Your task to perform on an android device: open chrome and create a bookmark for the current page Image 0: 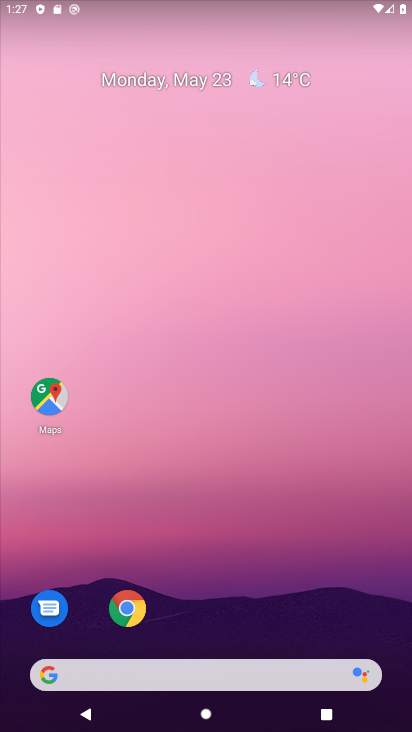
Step 0: click (122, 606)
Your task to perform on an android device: open chrome and create a bookmark for the current page Image 1: 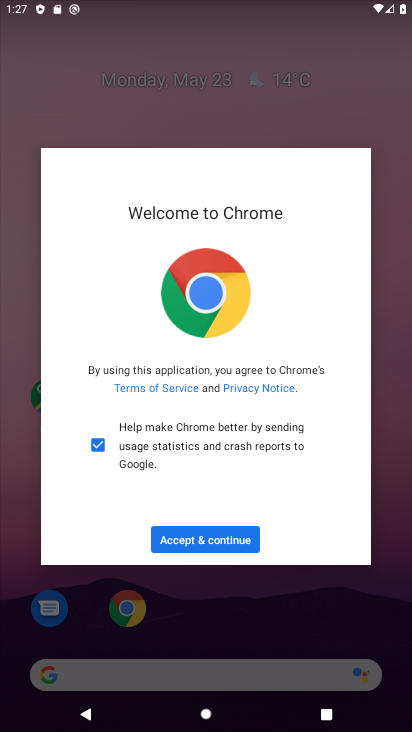
Step 1: click (205, 536)
Your task to perform on an android device: open chrome and create a bookmark for the current page Image 2: 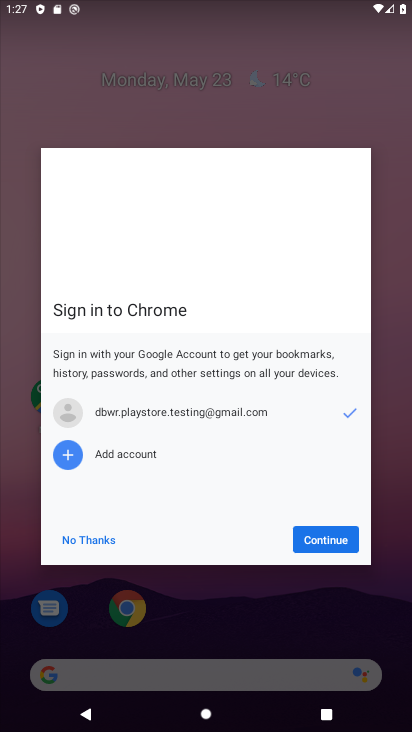
Step 2: click (307, 539)
Your task to perform on an android device: open chrome and create a bookmark for the current page Image 3: 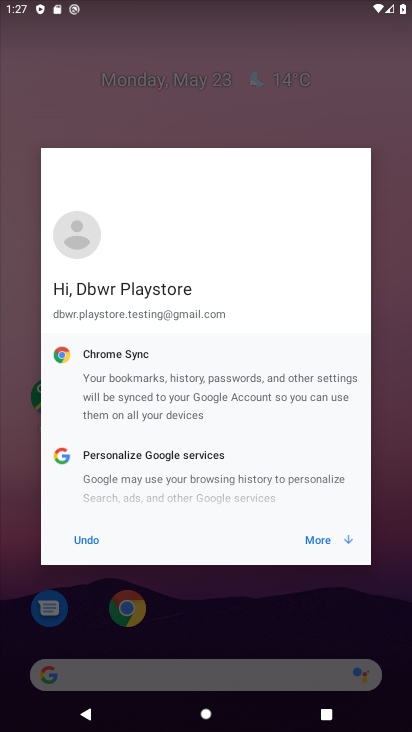
Step 3: click (307, 539)
Your task to perform on an android device: open chrome and create a bookmark for the current page Image 4: 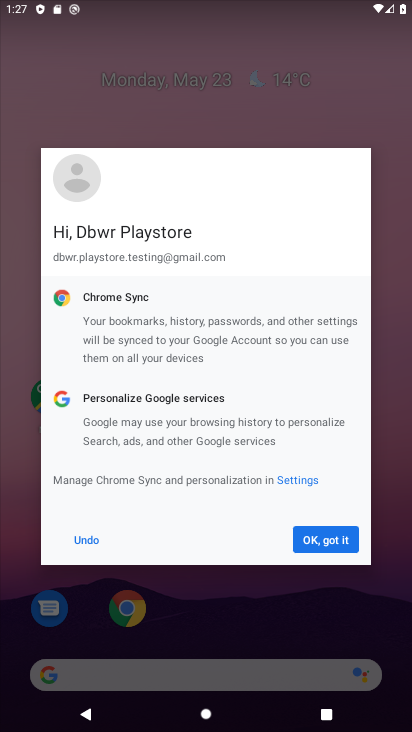
Step 4: click (340, 530)
Your task to perform on an android device: open chrome and create a bookmark for the current page Image 5: 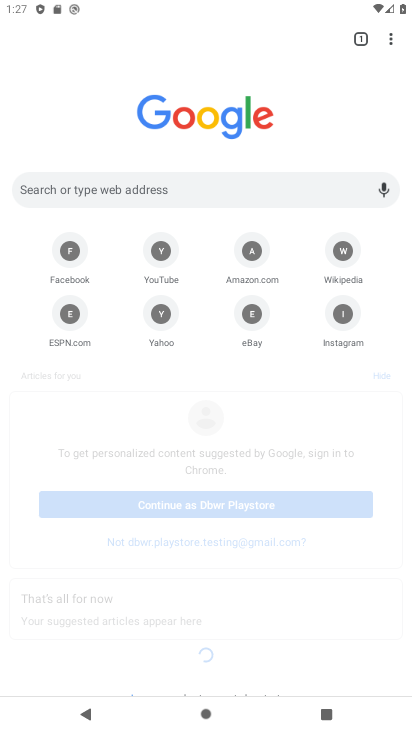
Step 5: click (394, 35)
Your task to perform on an android device: open chrome and create a bookmark for the current page Image 6: 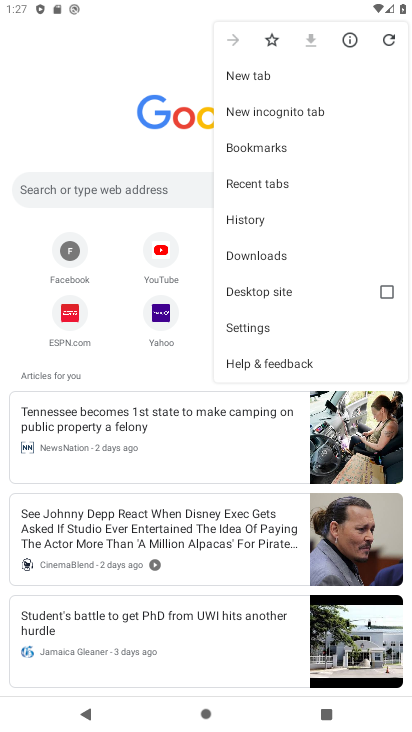
Step 6: click (268, 42)
Your task to perform on an android device: open chrome and create a bookmark for the current page Image 7: 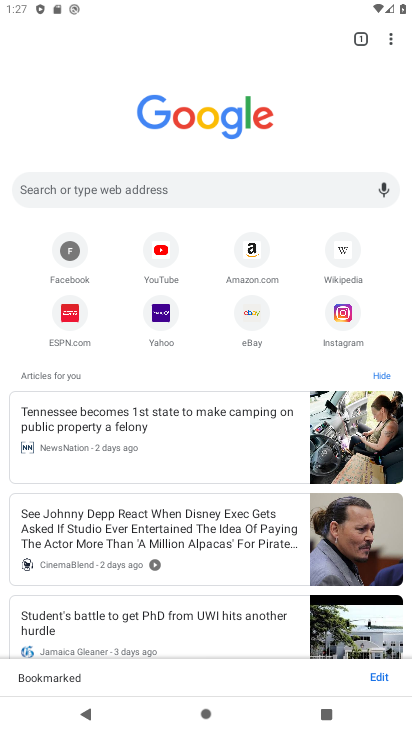
Step 7: task complete